Your task to perform on an android device: Open Youtube and go to "Your channel" Image 0: 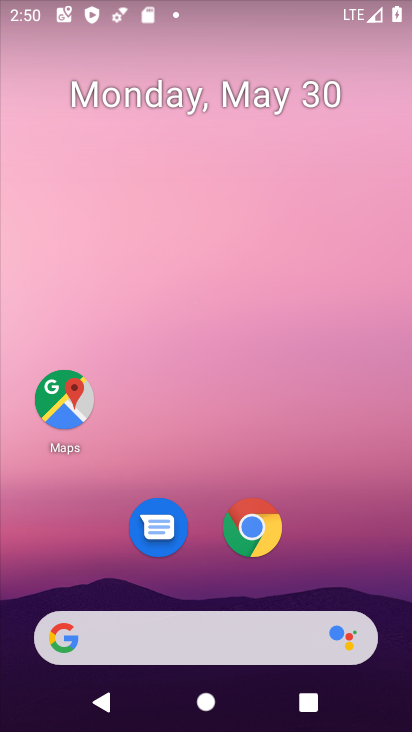
Step 0: drag from (347, 557) to (307, 96)
Your task to perform on an android device: Open Youtube and go to "Your channel" Image 1: 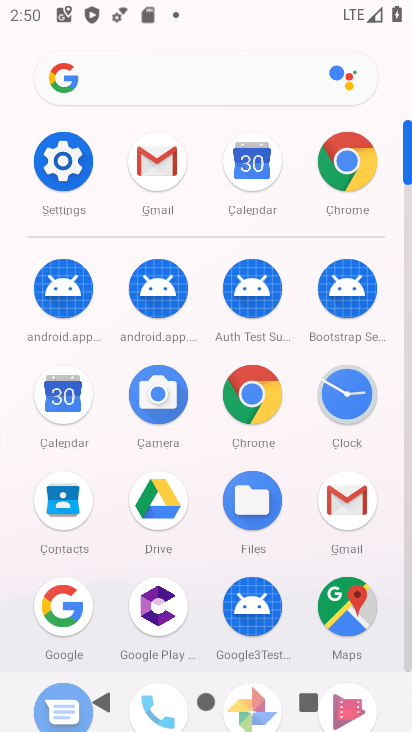
Step 1: drag from (206, 261) to (202, 65)
Your task to perform on an android device: Open Youtube and go to "Your channel" Image 2: 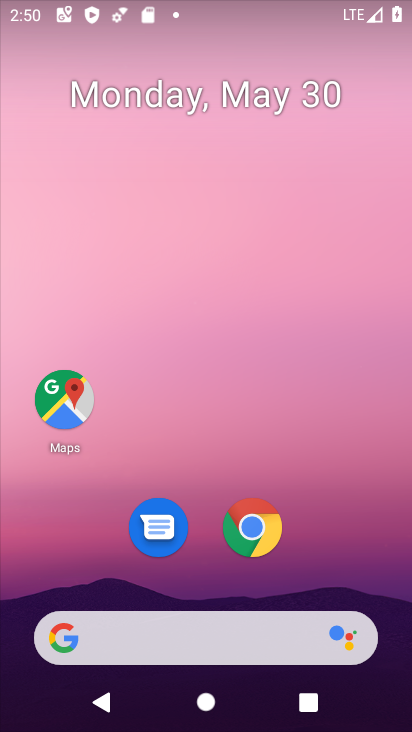
Step 2: drag from (310, 549) to (283, 72)
Your task to perform on an android device: Open Youtube and go to "Your channel" Image 3: 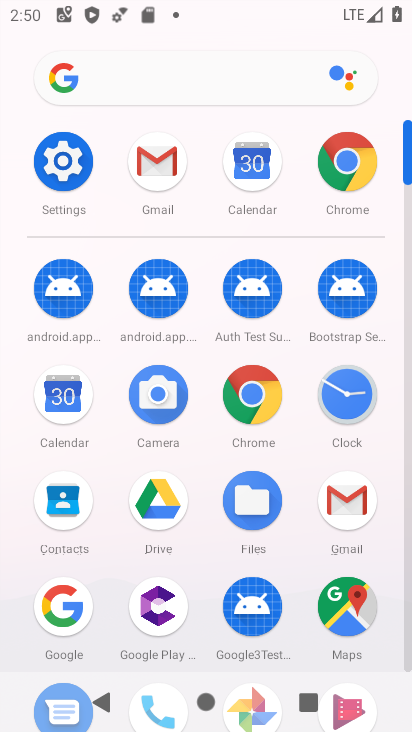
Step 3: drag from (197, 267) to (201, 17)
Your task to perform on an android device: Open Youtube and go to "Your channel" Image 4: 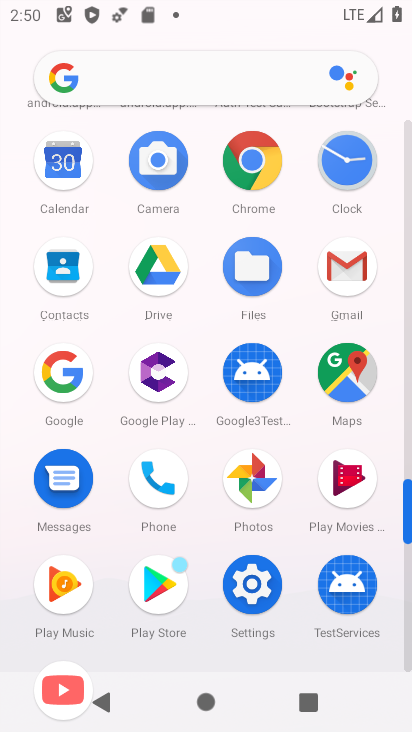
Step 4: click (347, 369)
Your task to perform on an android device: Open Youtube and go to "Your channel" Image 5: 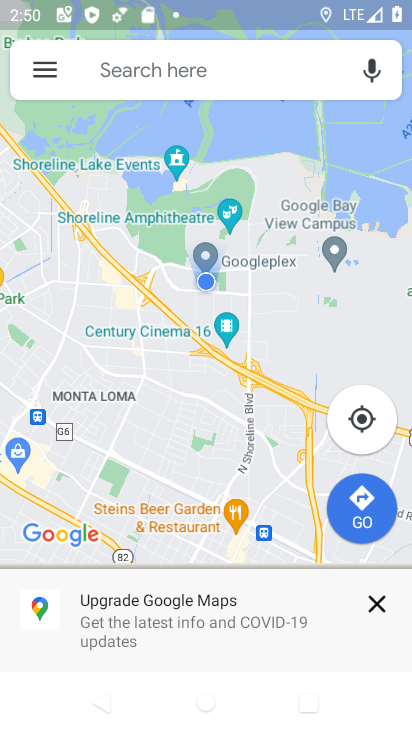
Step 5: press home button
Your task to perform on an android device: Open Youtube and go to "Your channel" Image 6: 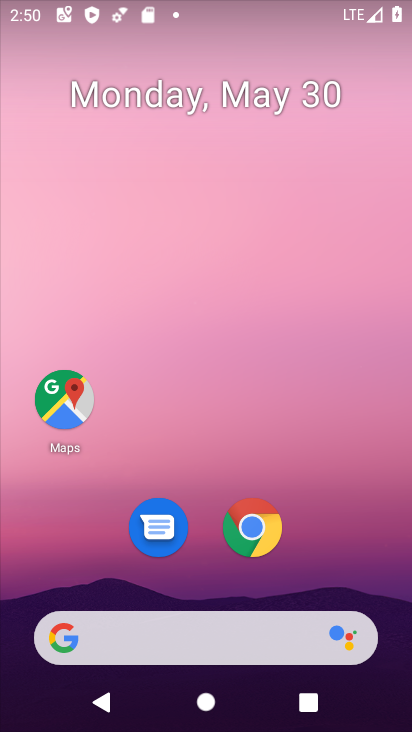
Step 6: drag from (329, 559) to (332, 139)
Your task to perform on an android device: Open Youtube and go to "Your channel" Image 7: 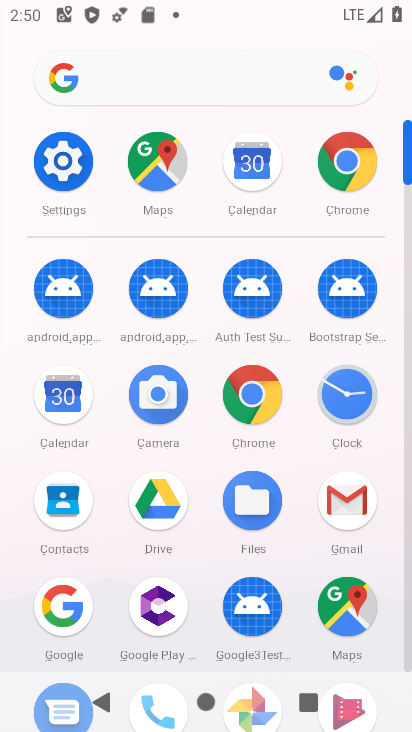
Step 7: drag from (297, 497) to (291, 201)
Your task to perform on an android device: Open Youtube and go to "Your channel" Image 8: 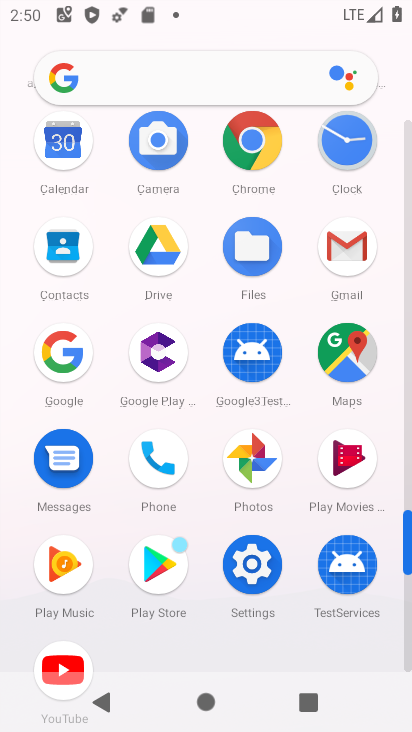
Step 8: click (81, 660)
Your task to perform on an android device: Open Youtube and go to "Your channel" Image 9: 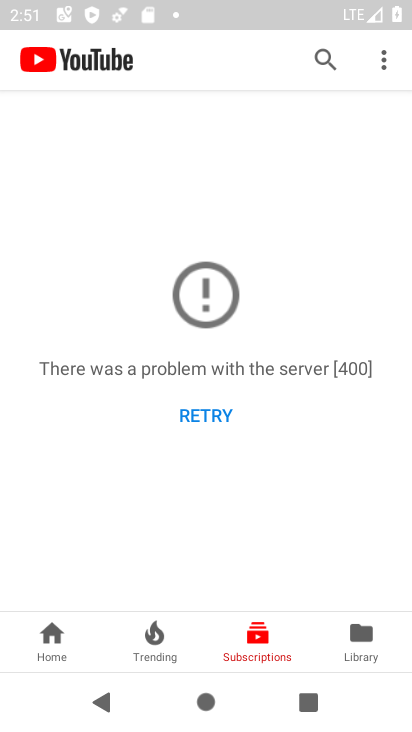
Step 9: task complete